Your task to perform on an android device: turn on location history Image 0: 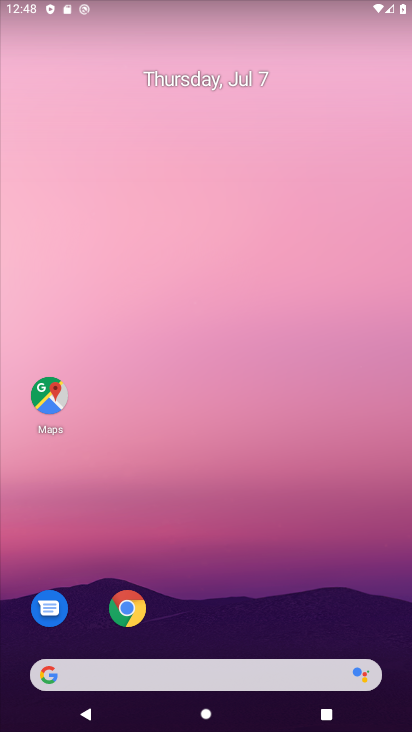
Step 0: drag from (203, 644) to (243, 103)
Your task to perform on an android device: turn on location history Image 1: 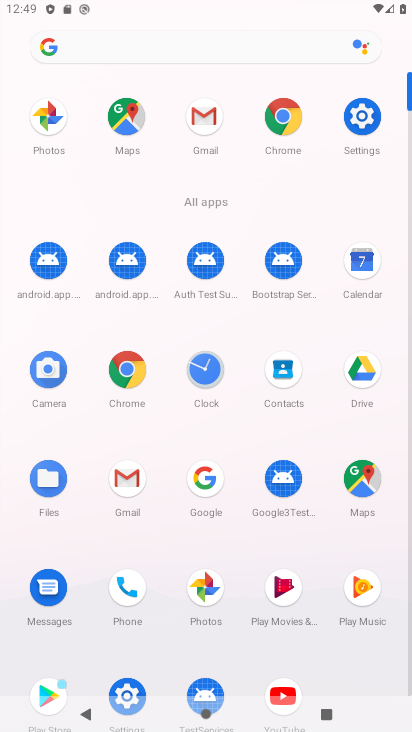
Step 1: click (120, 122)
Your task to perform on an android device: turn on location history Image 2: 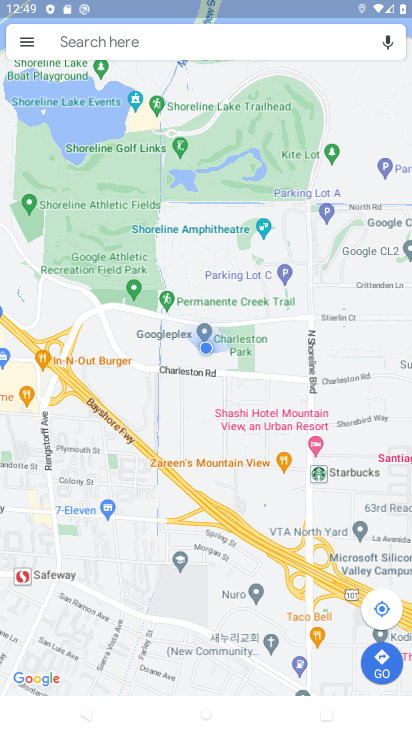
Step 2: click (27, 41)
Your task to perform on an android device: turn on location history Image 3: 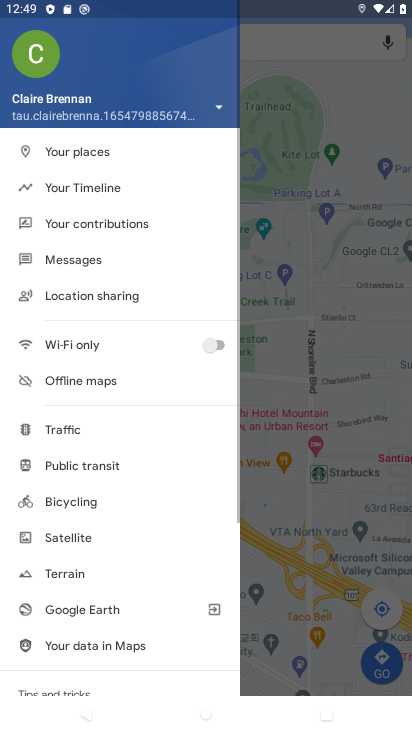
Step 3: click (82, 186)
Your task to perform on an android device: turn on location history Image 4: 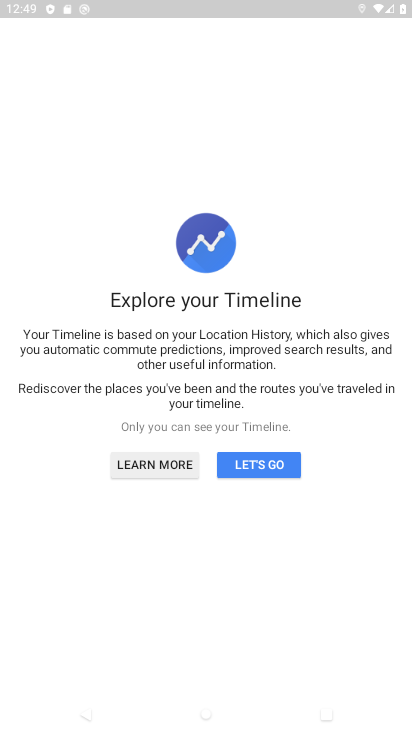
Step 4: click (287, 461)
Your task to perform on an android device: turn on location history Image 5: 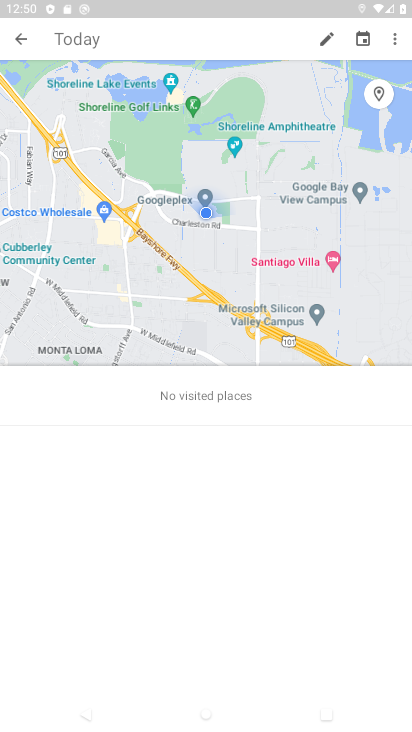
Step 5: click (15, 36)
Your task to perform on an android device: turn on location history Image 6: 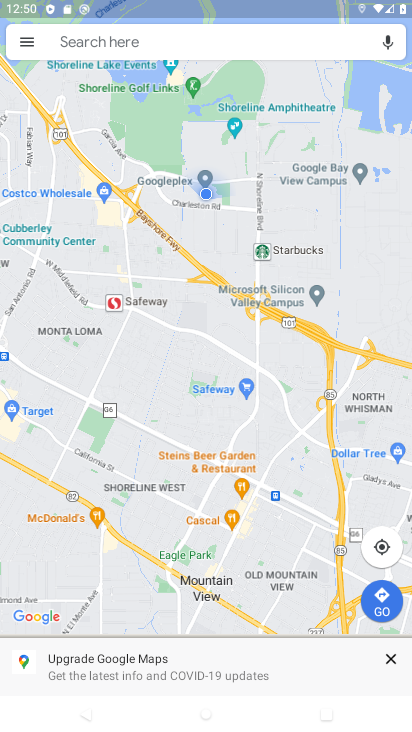
Step 6: click (32, 47)
Your task to perform on an android device: turn on location history Image 7: 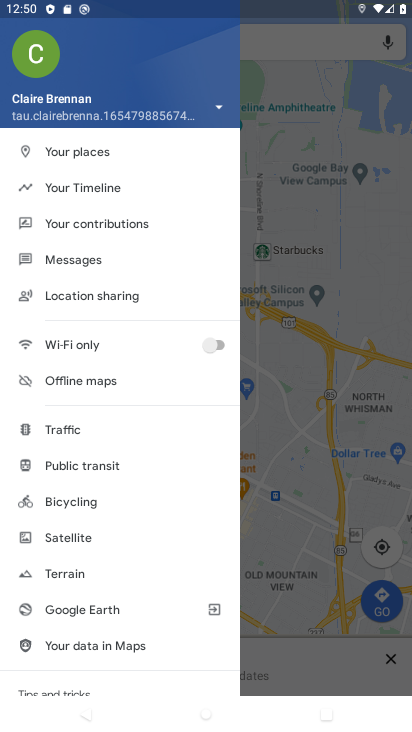
Step 7: click (90, 190)
Your task to perform on an android device: turn on location history Image 8: 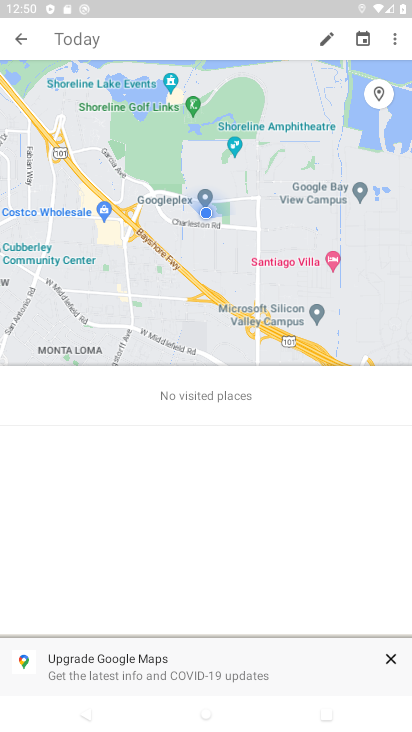
Step 8: click (392, 42)
Your task to perform on an android device: turn on location history Image 9: 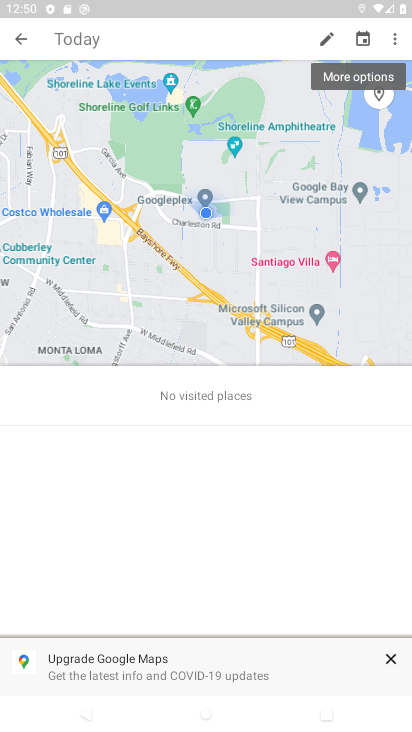
Step 9: click (392, 39)
Your task to perform on an android device: turn on location history Image 10: 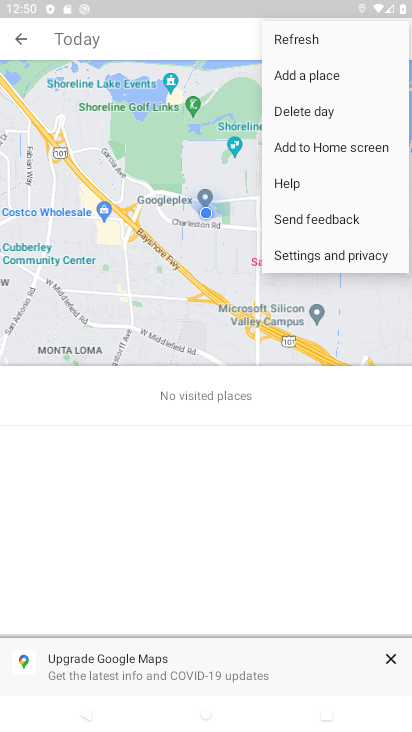
Step 10: click (320, 255)
Your task to perform on an android device: turn on location history Image 11: 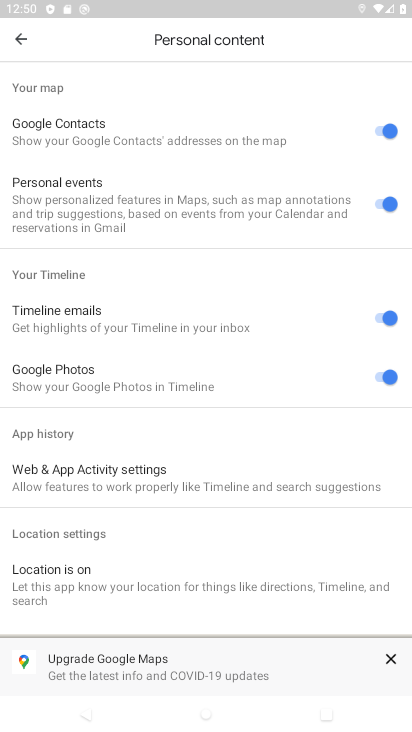
Step 11: drag from (154, 610) to (259, 238)
Your task to perform on an android device: turn on location history Image 12: 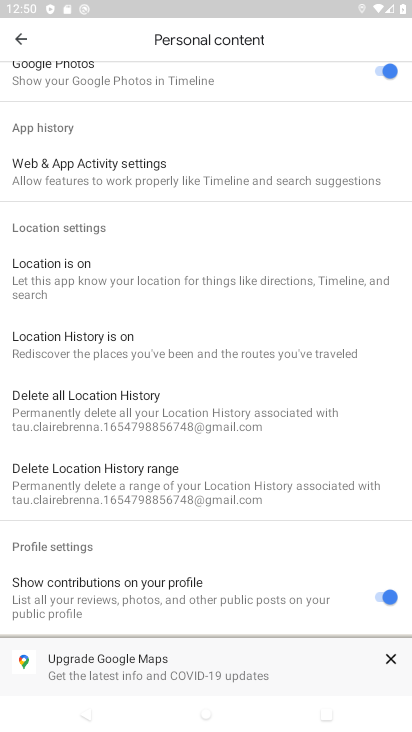
Step 12: click (125, 363)
Your task to perform on an android device: turn on location history Image 13: 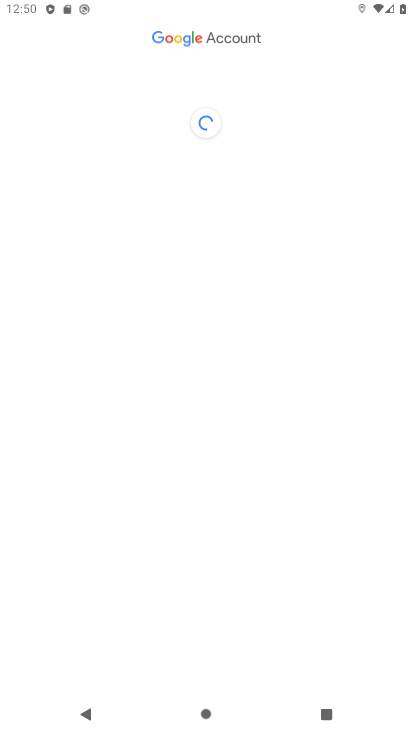
Step 13: click (190, 350)
Your task to perform on an android device: turn on location history Image 14: 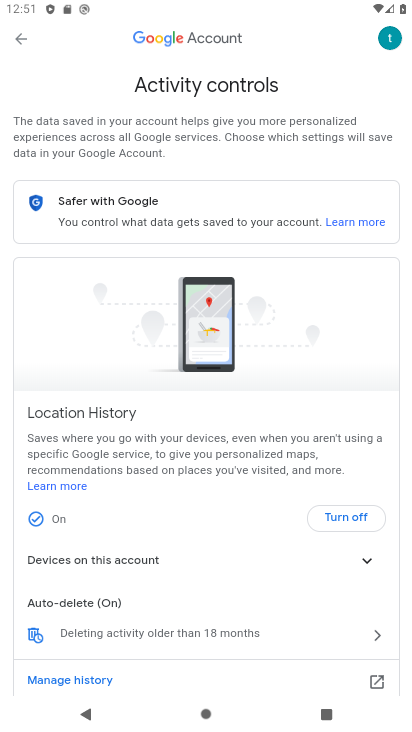
Step 14: task complete